Your task to perform on an android device: When is my next appointment? Image 0: 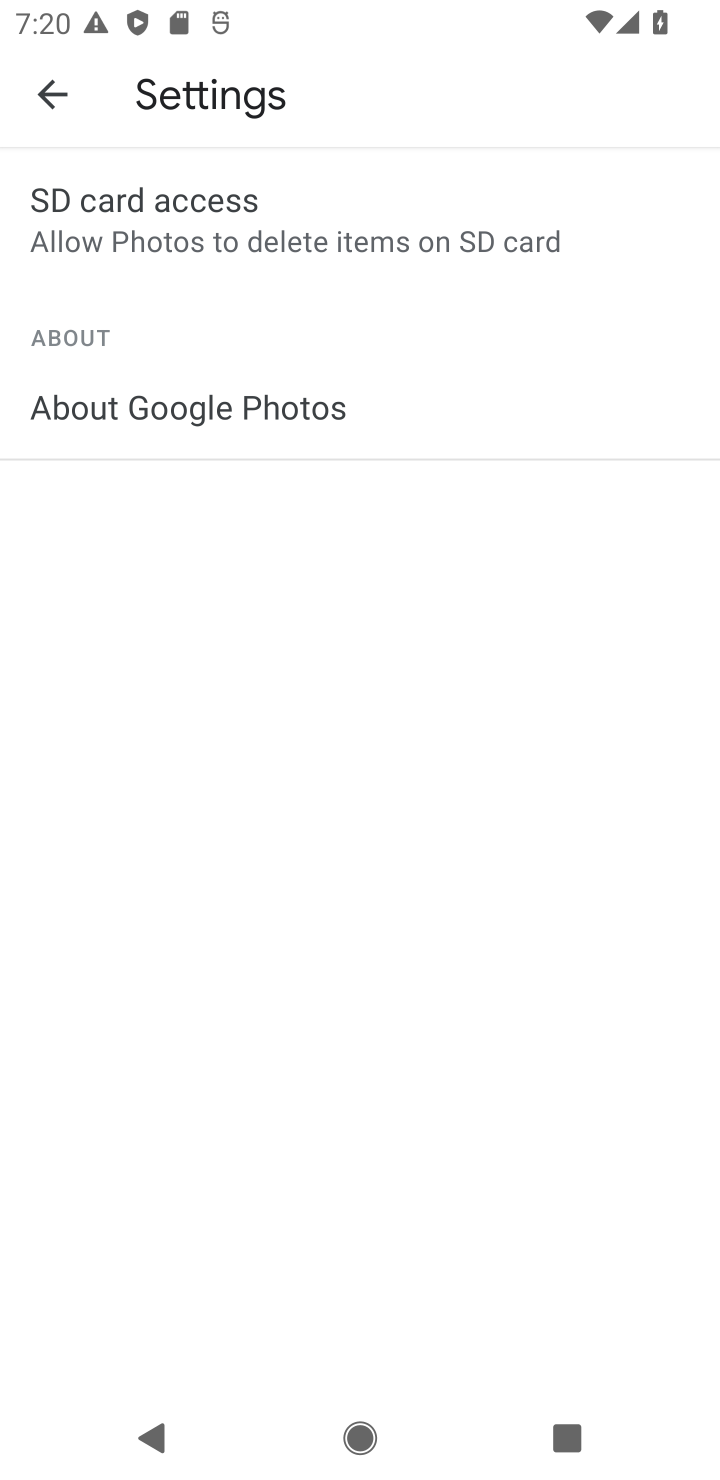
Step 0: press home button
Your task to perform on an android device: When is my next appointment? Image 1: 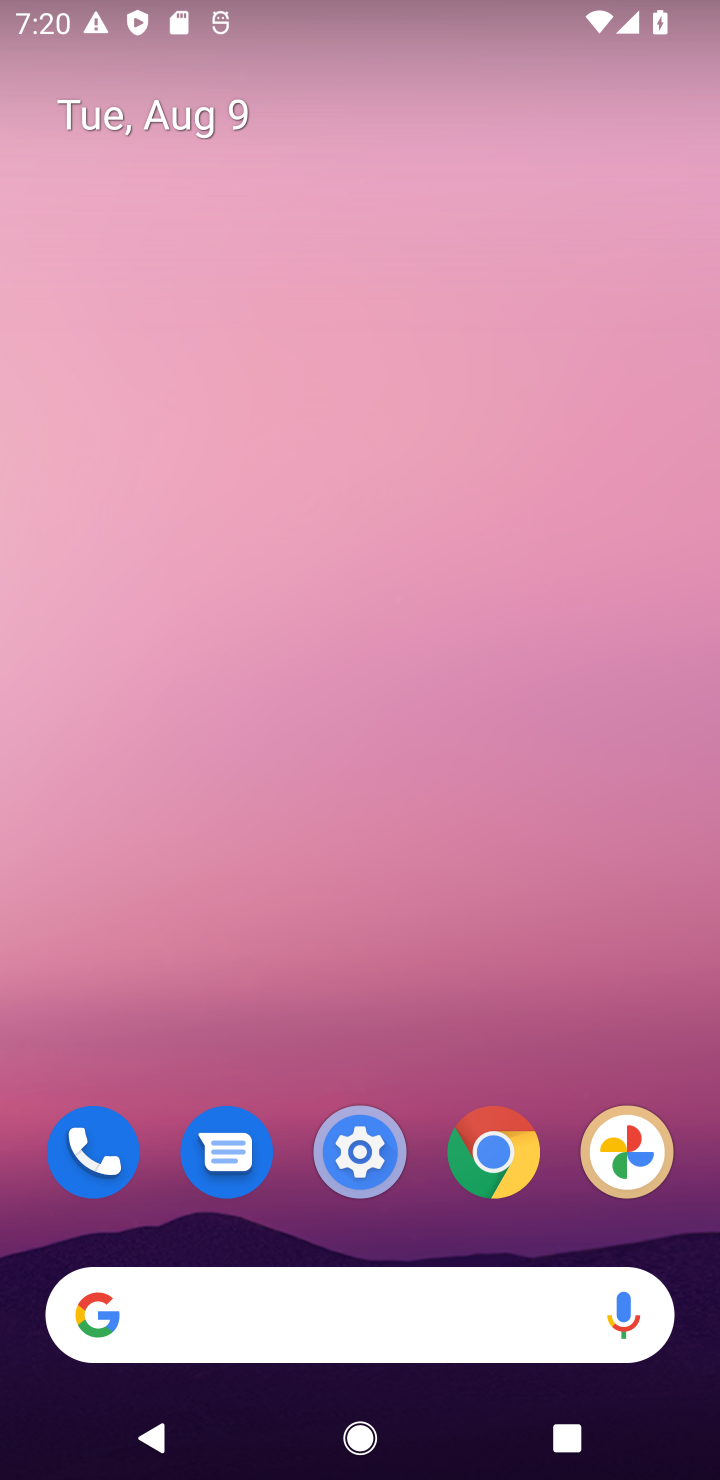
Step 1: click (215, 126)
Your task to perform on an android device: When is my next appointment? Image 2: 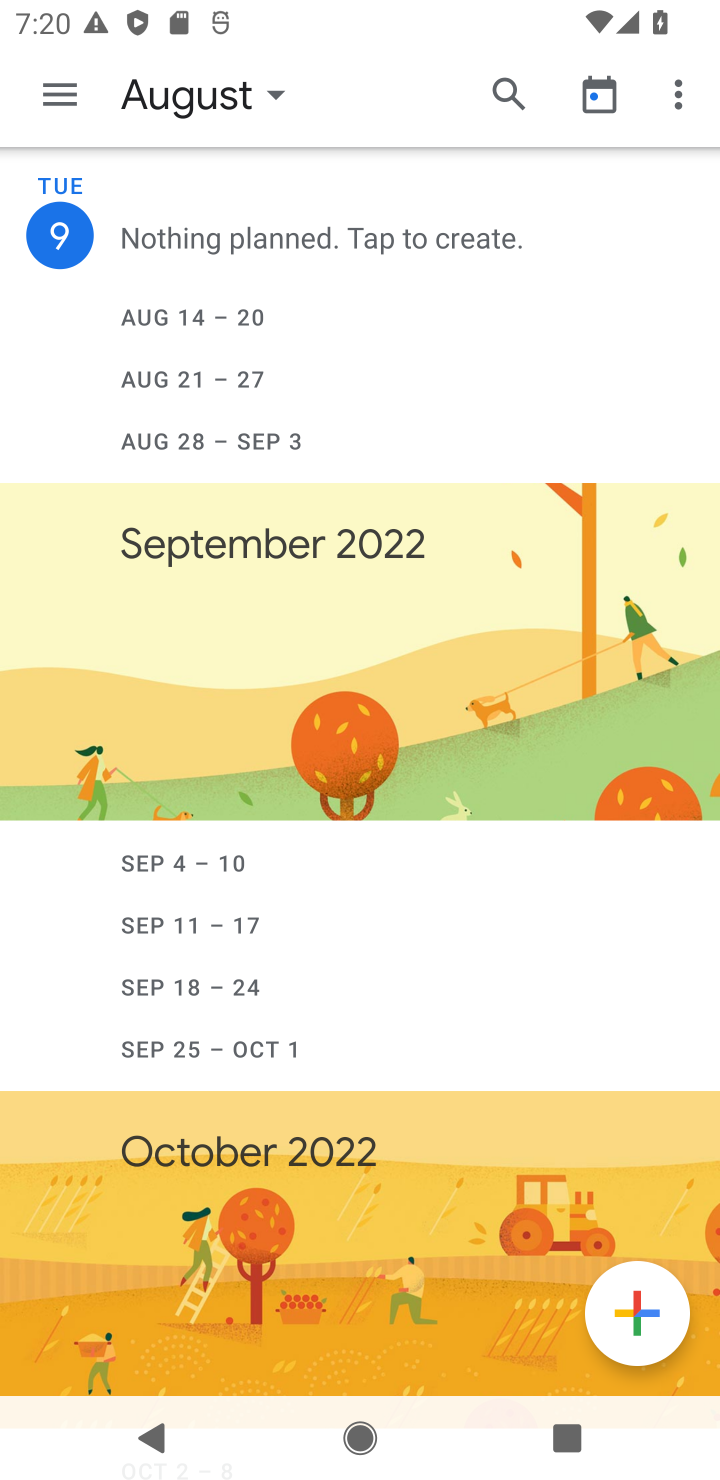
Step 2: task complete